Your task to perform on an android device: toggle airplane mode Image 0: 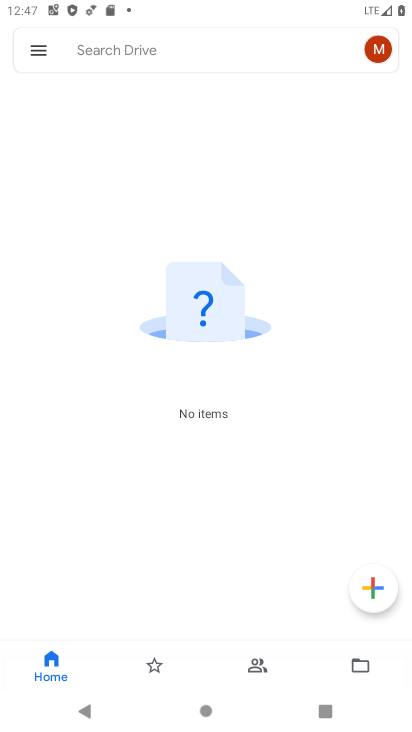
Step 0: press home button
Your task to perform on an android device: toggle airplane mode Image 1: 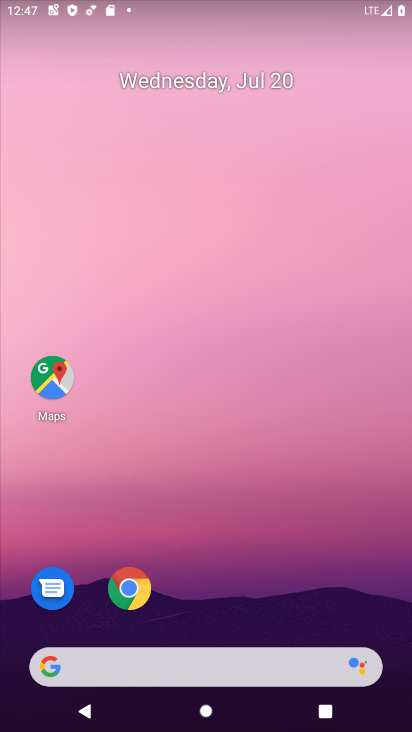
Step 1: drag from (381, 626) to (255, 69)
Your task to perform on an android device: toggle airplane mode Image 2: 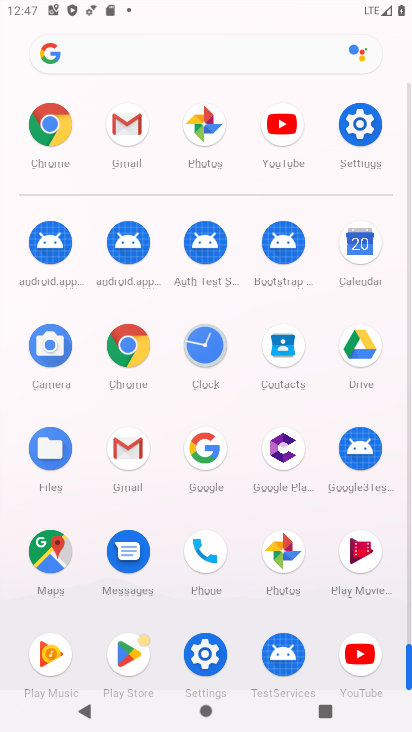
Step 2: click (357, 135)
Your task to perform on an android device: toggle airplane mode Image 3: 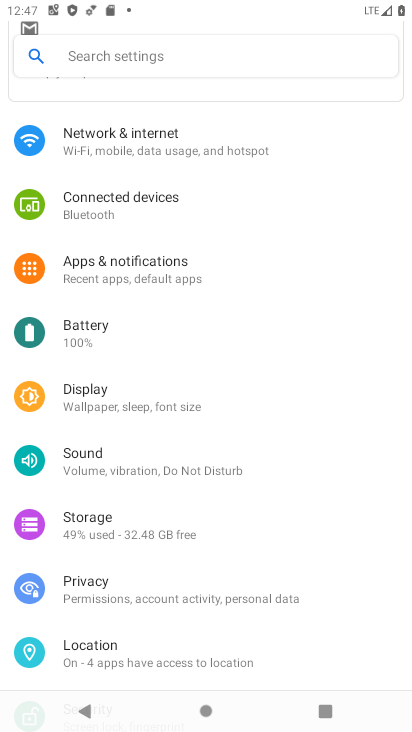
Step 3: click (133, 143)
Your task to perform on an android device: toggle airplane mode Image 4: 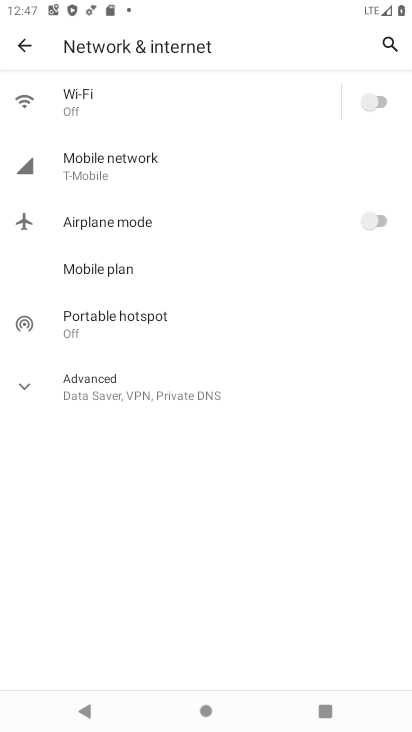
Step 4: click (368, 216)
Your task to perform on an android device: toggle airplane mode Image 5: 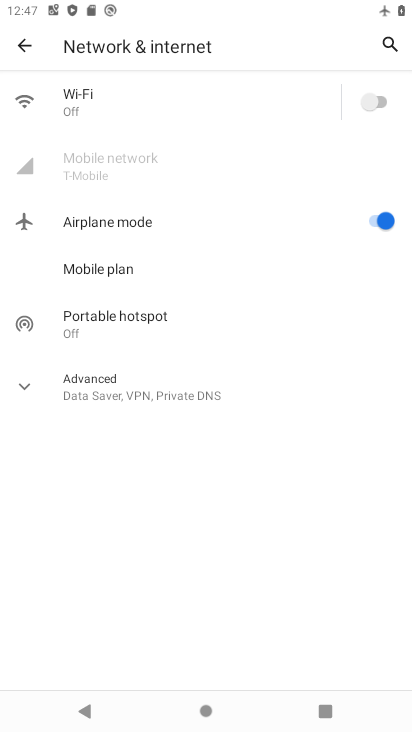
Step 5: task complete